Your task to perform on an android device: clear all cookies in the chrome app Image 0: 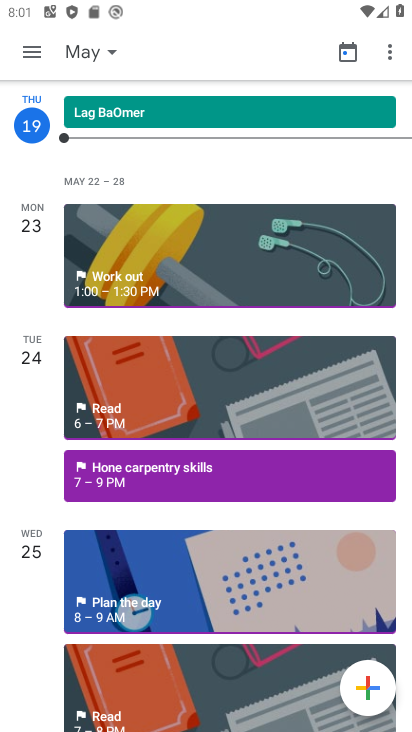
Step 0: press home button
Your task to perform on an android device: clear all cookies in the chrome app Image 1: 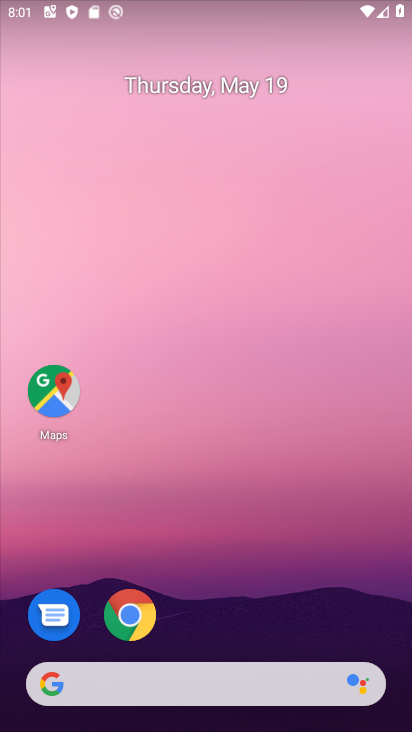
Step 1: click (132, 616)
Your task to perform on an android device: clear all cookies in the chrome app Image 2: 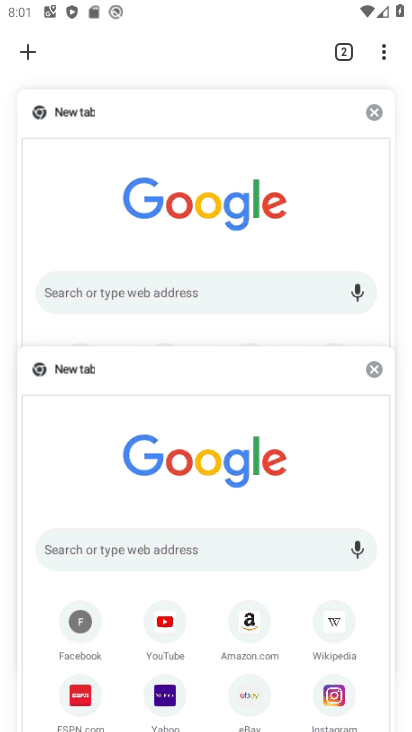
Step 2: press back button
Your task to perform on an android device: clear all cookies in the chrome app Image 3: 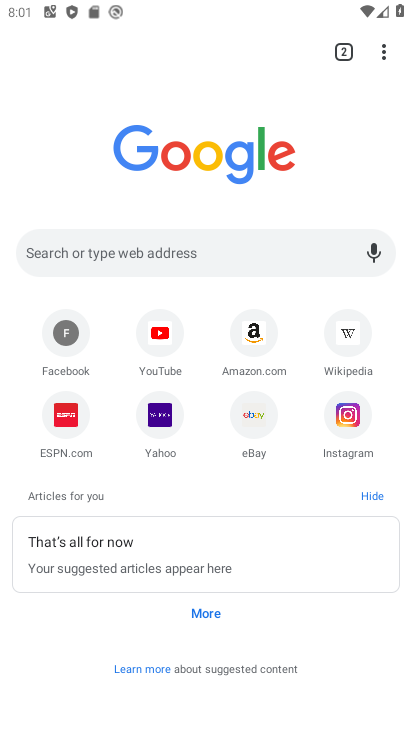
Step 3: click (374, 49)
Your task to perform on an android device: clear all cookies in the chrome app Image 4: 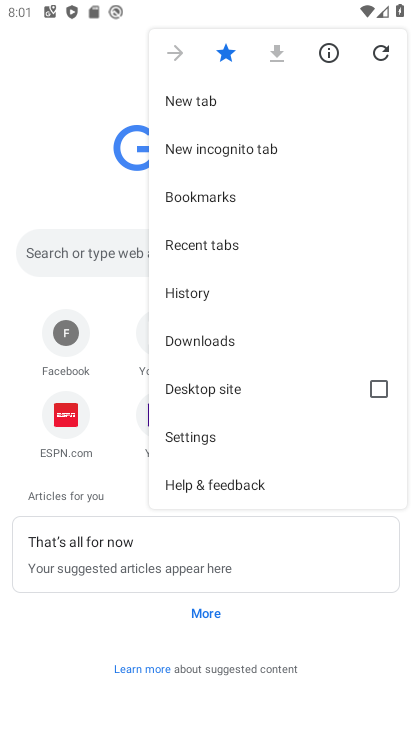
Step 4: click (210, 437)
Your task to perform on an android device: clear all cookies in the chrome app Image 5: 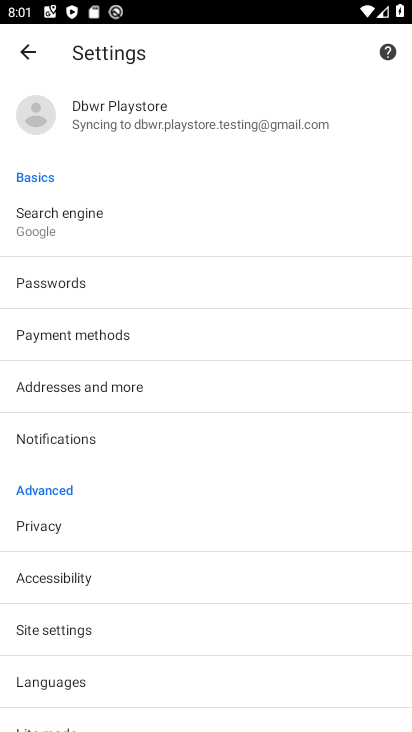
Step 5: click (64, 539)
Your task to perform on an android device: clear all cookies in the chrome app Image 6: 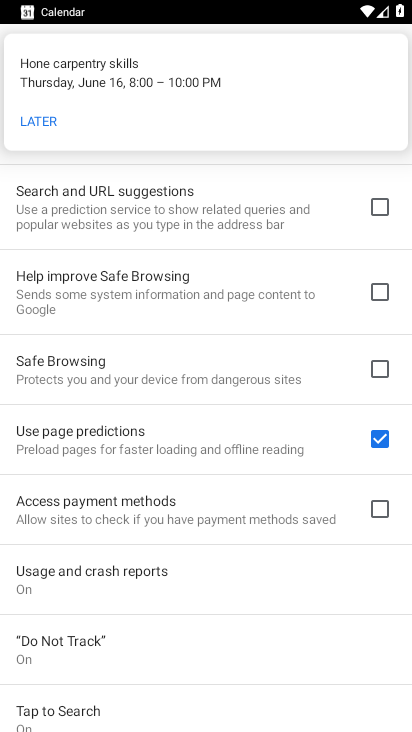
Step 6: drag from (202, 512) to (282, 7)
Your task to perform on an android device: clear all cookies in the chrome app Image 7: 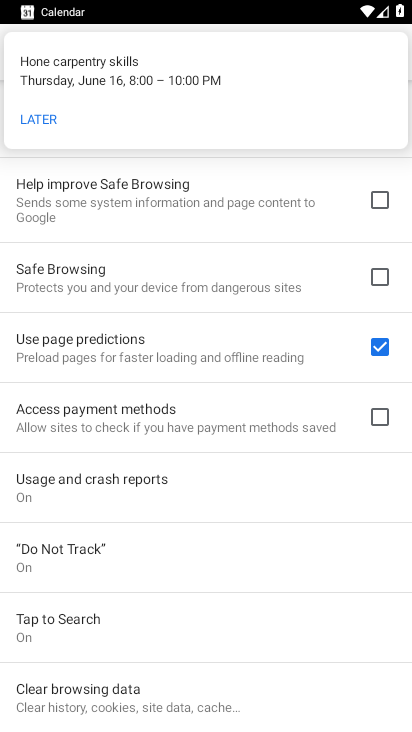
Step 7: click (70, 689)
Your task to perform on an android device: clear all cookies in the chrome app Image 8: 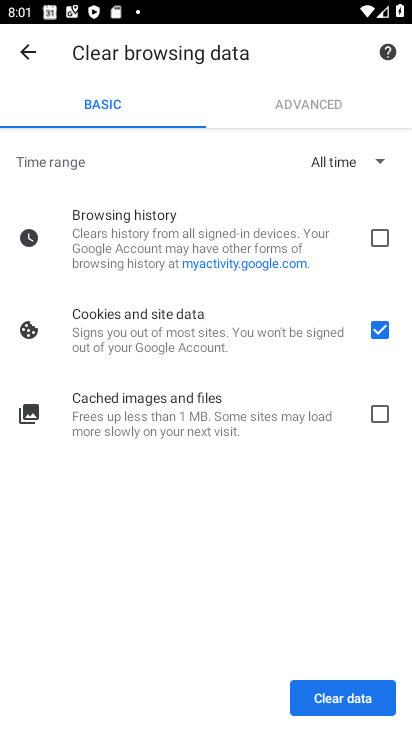
Step 8: click (334, 701)
Your task to perform on an android device: clear all cookies in the chrome app Image 9: 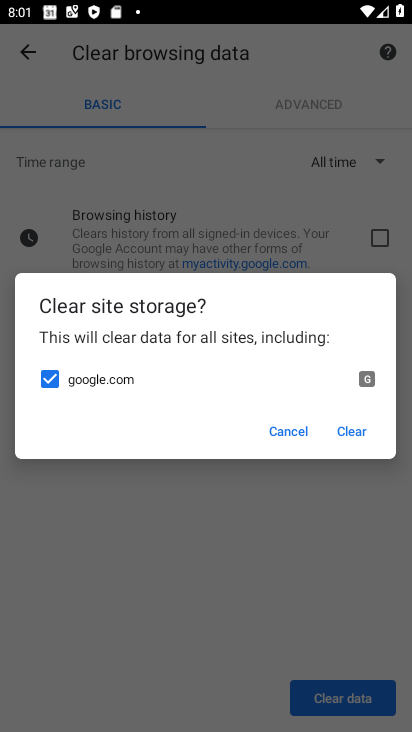
Step 9: click (344, 432)
Your task to perform on an android device: clear all cookies in the chrome app Image 10: 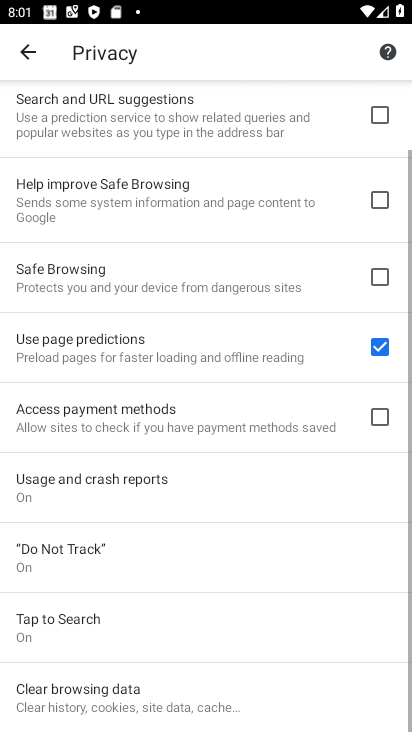
Step 10: task complete